Your task to perform on an android device: Open internet settings Image 0: 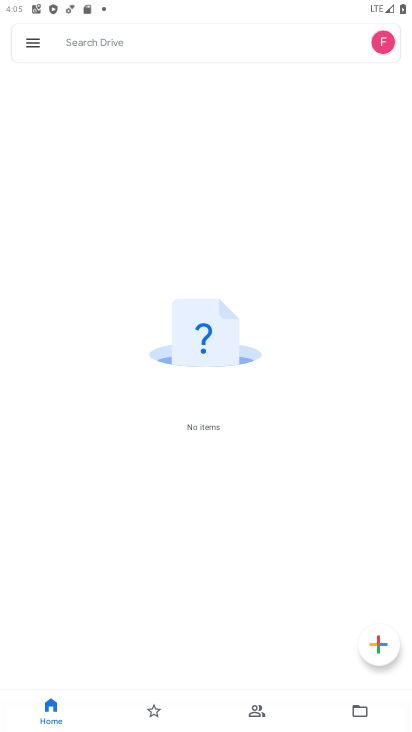
Step 0: press home button
Your task to perform on an android device: Open internet settings Image 1: 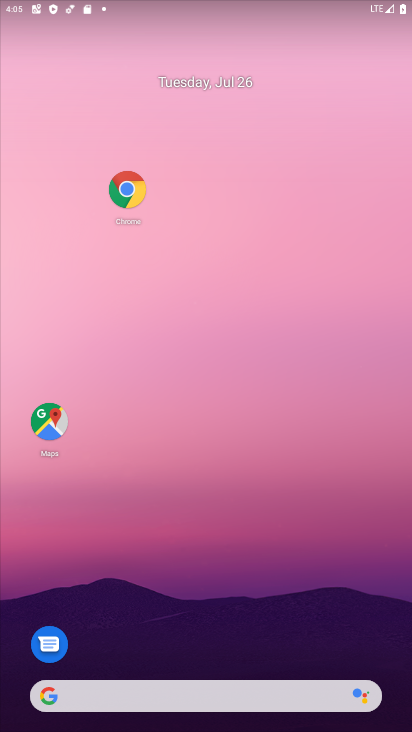
Step 1: drag from (231, 690) to (225, 167)
Your task to perform on an android device: Open internet settings Image 2: 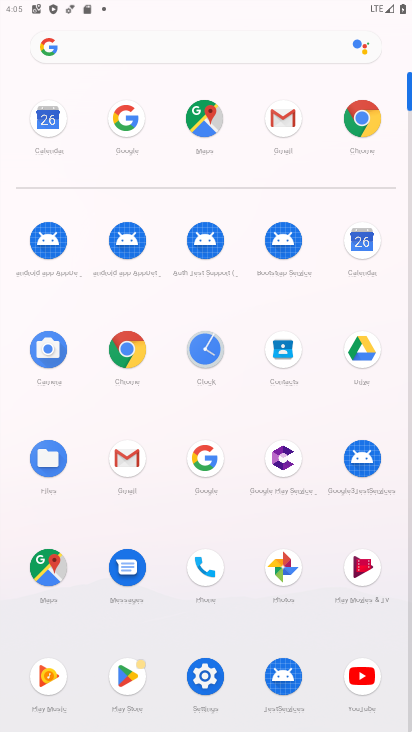
Step 2: click (193, 676)
Your task to perform on an android device: Open internet settings Image 3: 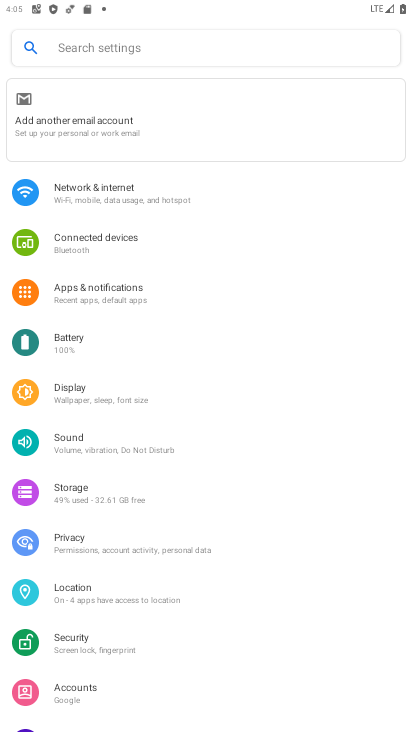
Step 3: click (99, 198)
Your task to perform on an android device: Open internet settings Image 4: 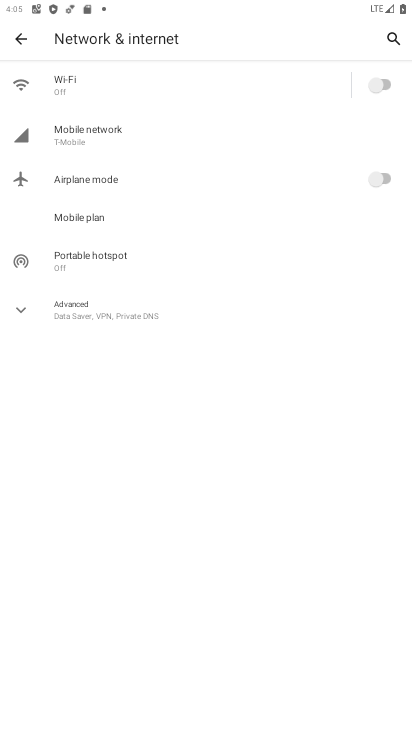
Step 4: click (94, 313)
Your task to perform on an android device: Open internet settings Image 5: 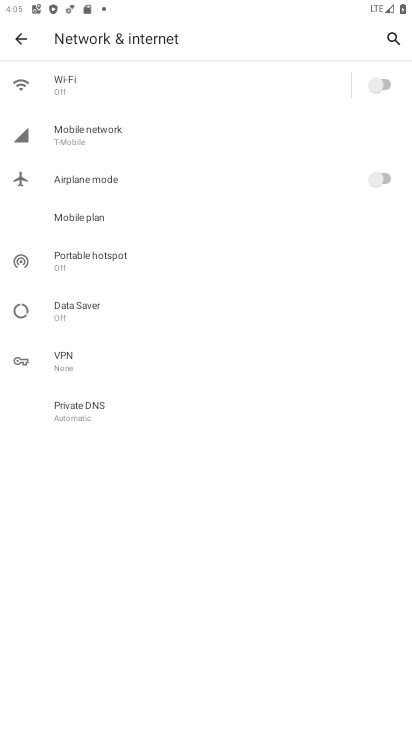
Step 5: task complete